Your task to perform on an android device: all mails in gmail Image 0: 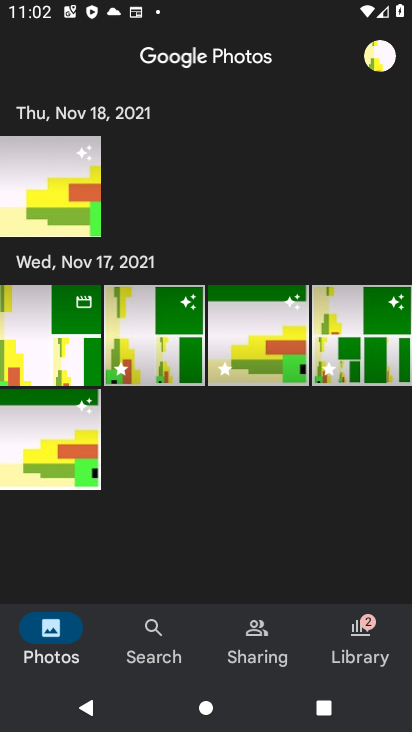
Step 0: press home button
Your task to perform on an android device: all mails in gmail Image 1: 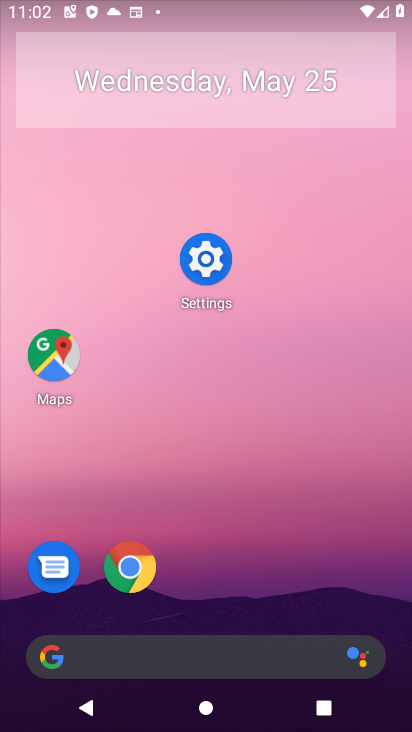
Step 1: drag from (292, 581) to (294, 13)
Your task to perform on an android device: all mails in gmail Image 2: 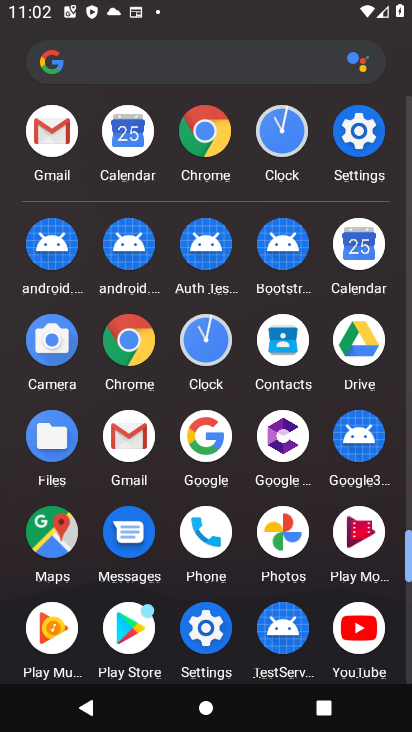
Step 2: click (69, 131)
Your task to perform on an android device: all mails in gmail Image 3: 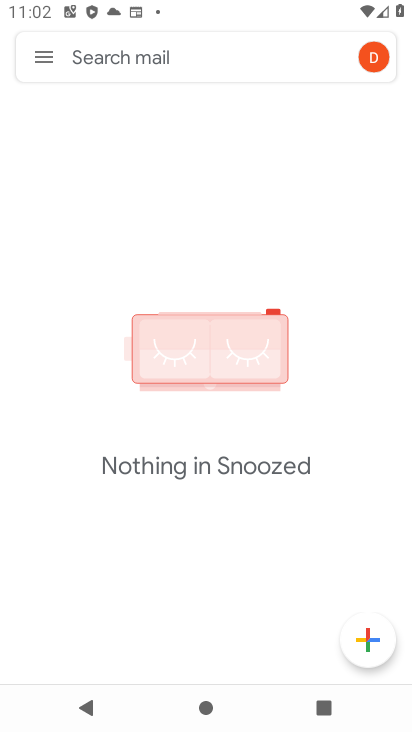
Step 3: task complete